Your task to perform on an android device: Is it going to rain tomorrow? Image 0: 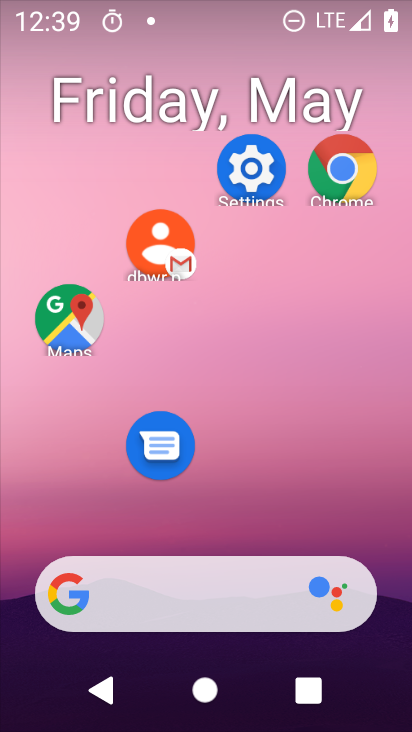
Step 0: drag from (209, 486) to (197, 107)
Your task to perform on an android device: Is it going to rain tomorrow? Image 1: 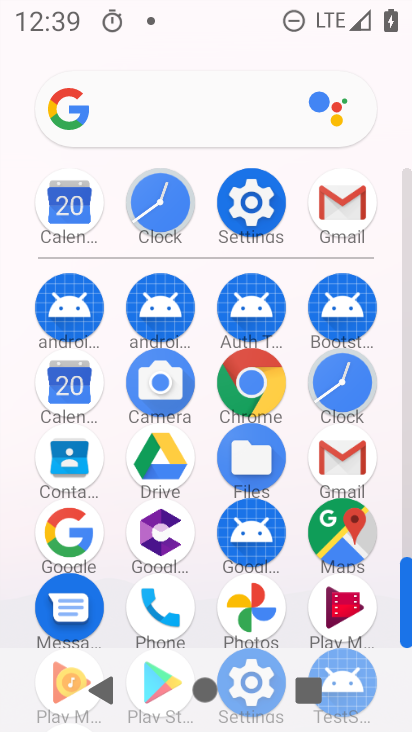
Step 1: click (206, 109)
Your task to perform on an android device: Is it going to rain tomorrow? Image 2: 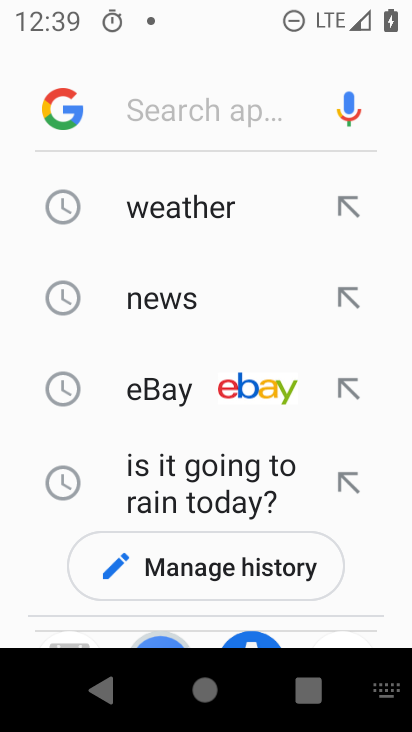
Step 2: type " rain tomorrow?"
Your task to perform on an android device: Is it going to rain tomorrow? Image 3: 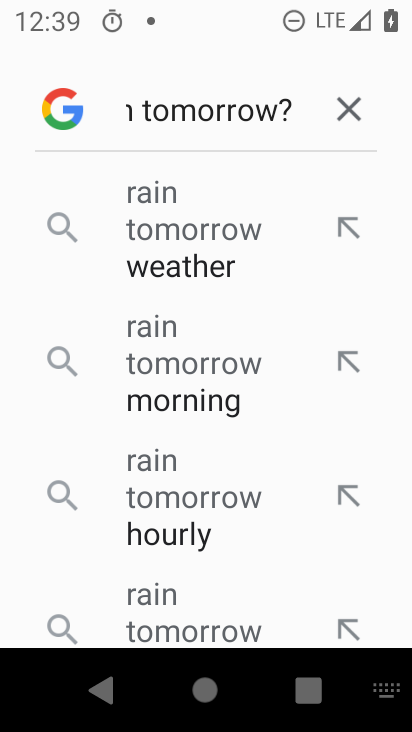
Step 3: click (141, 213)
Your task to perform on an android device: Is it going to rain tomorrow? Image 4: 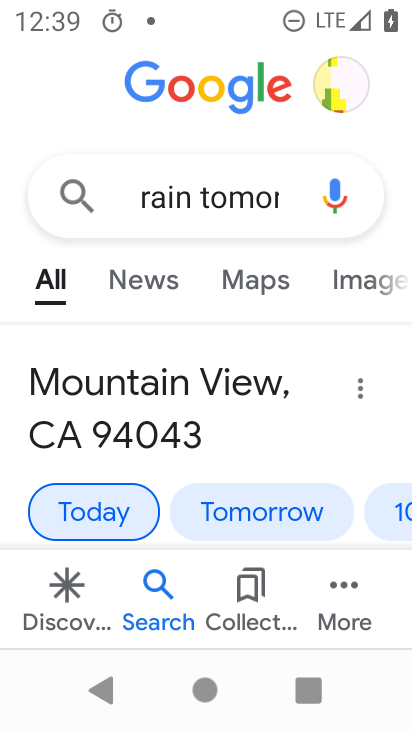
Step 4: task complete